Your task to perform on an android device: turn on airplane mode Image 0: 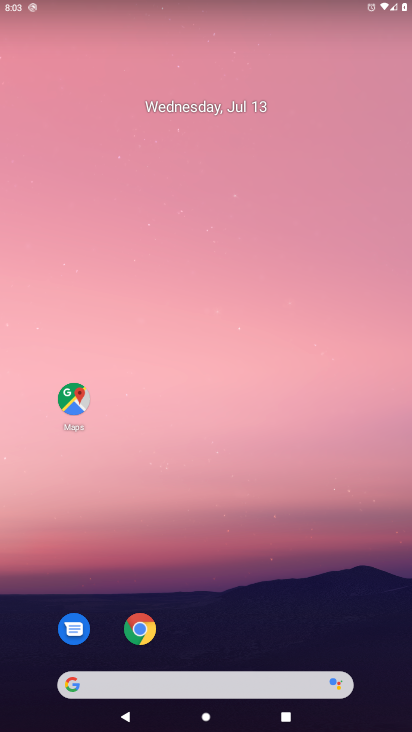
Step 0: click (138, 623)
Your task to perform on an android device: turn on airplane mode Image 1: 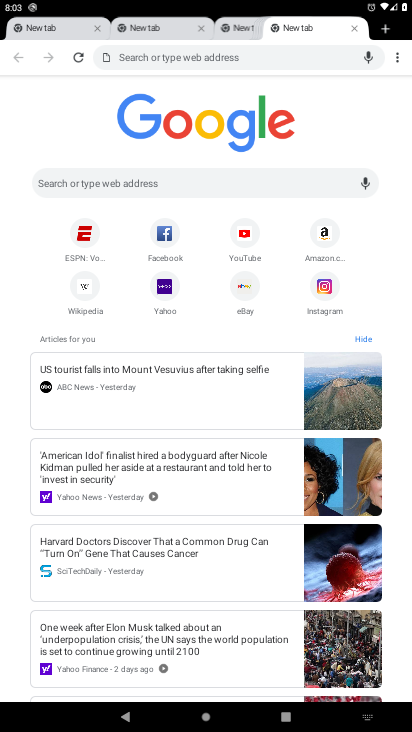
Step 1: press home button
Your task to perform on an android device: turn on airplane mode Image 2: 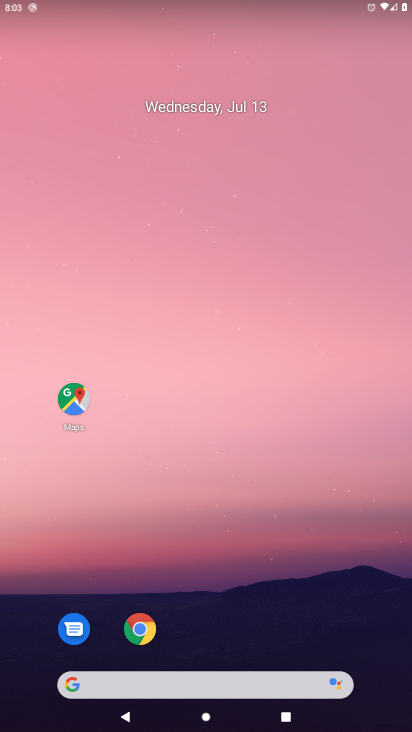
Step 2: drag from (71, 529) to (275, 14)
Your task to perform on an android device: turn on airplane mode Image 3: 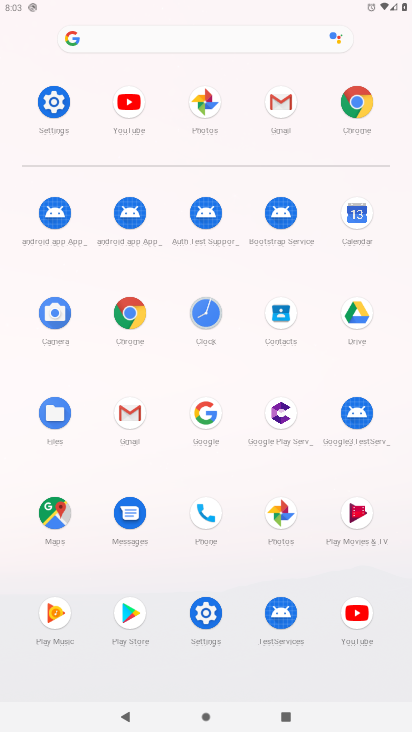
Step 3: click (218, 609)
Your task to perform on an android device: turn on airplane mode Image 4: 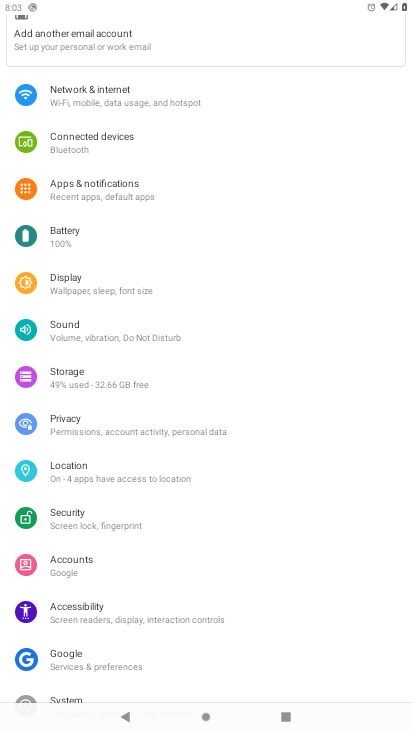
Step 4: click (125, 94)
Your task to perform on an android device: turn on airplane mode Image 5: 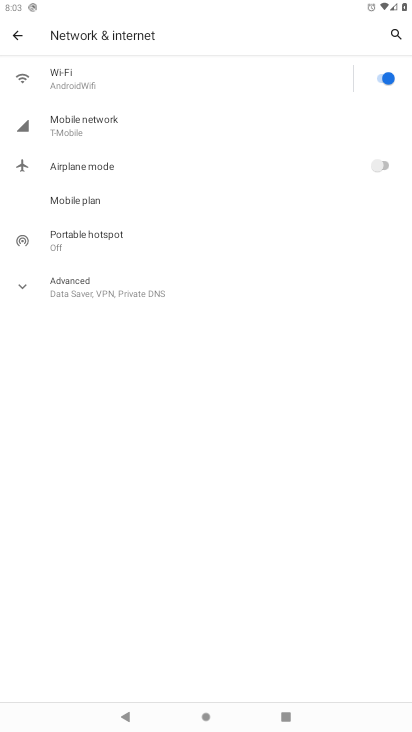
Step 5: click (384, 163)
Your task to perform on an android device: turn on airplane mode Image 6: 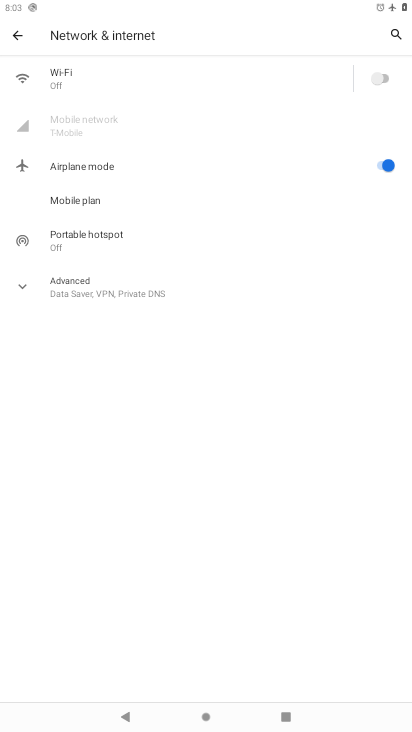
Step 6: task complete